Your task to perform on an android device: turn vacation reply on in the gmail app Image 0: 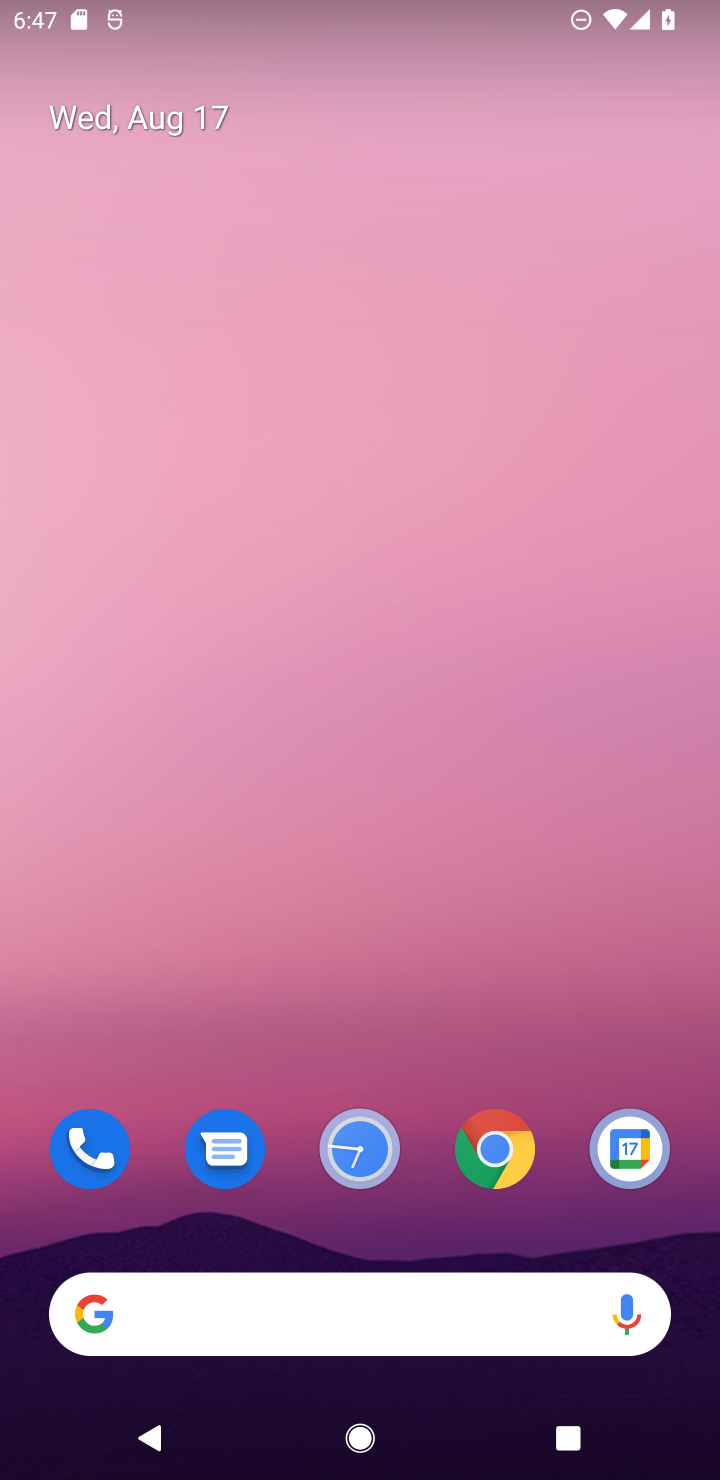
Step 0: drag from (427, 1245) to (414, 162)
Your task to perform on an android device: turn vacation reply on in the gmail app Image 1: 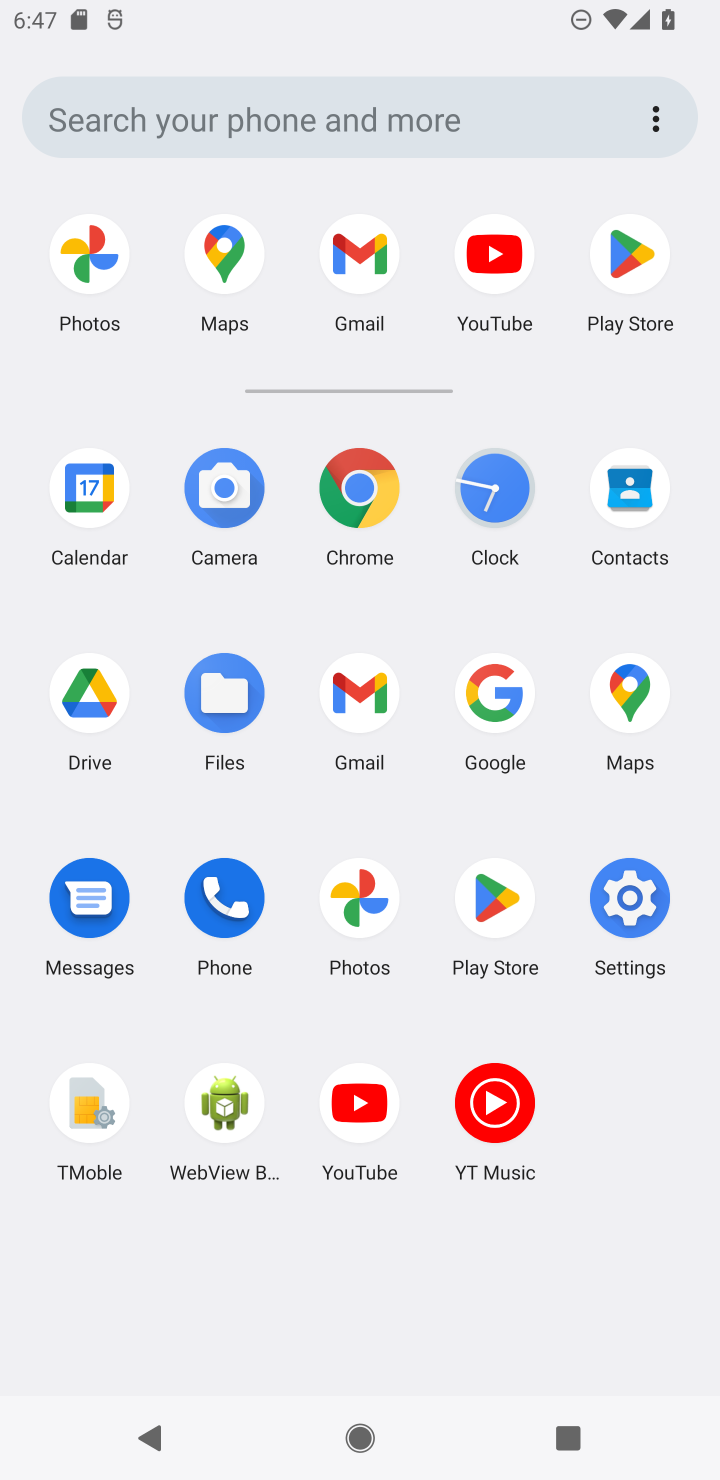
Step 1: click (355, 246)
Your task to perform on an android device: turn vacation reply on in the gmail app Image 2: 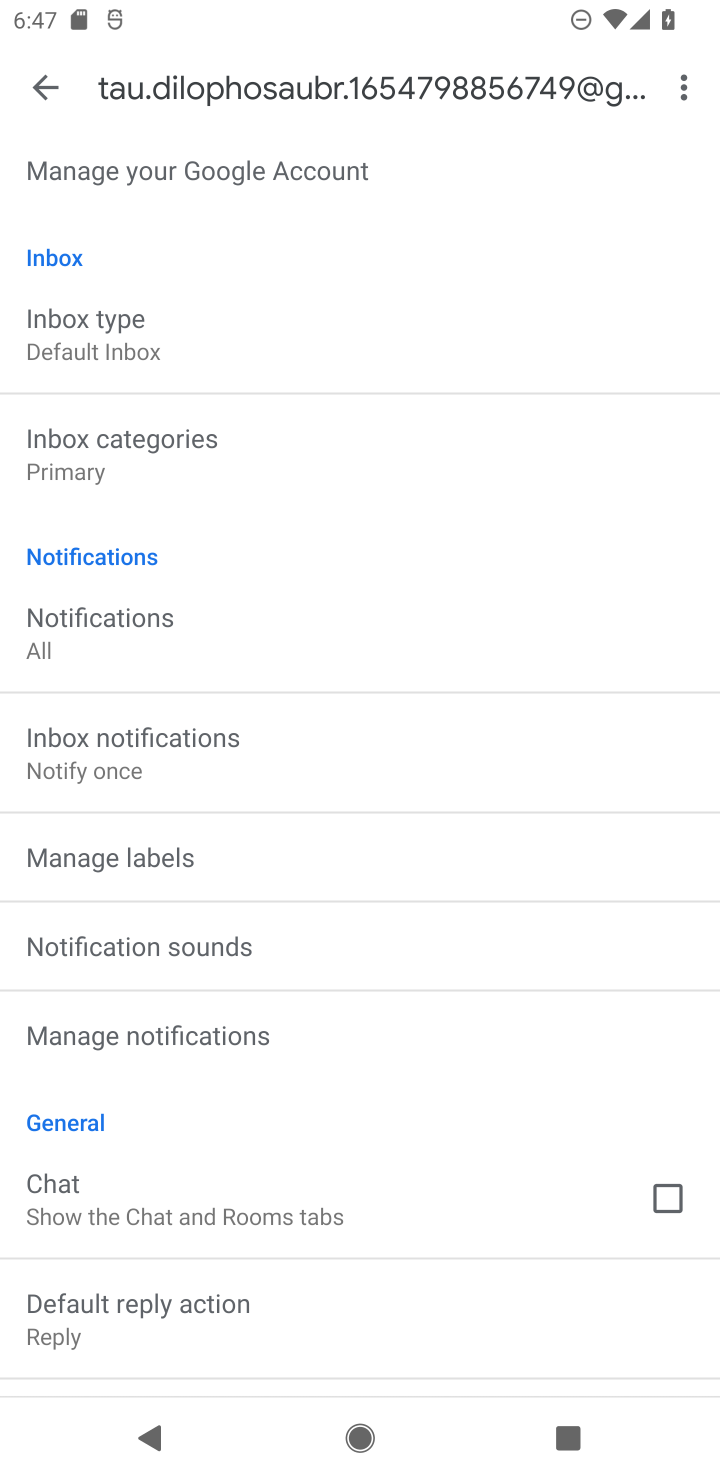
Step 2: drag from (215, 1122) to (169, 297)
Your task to perform on an android device: turn vacation reply on in the gmail app Image 3: 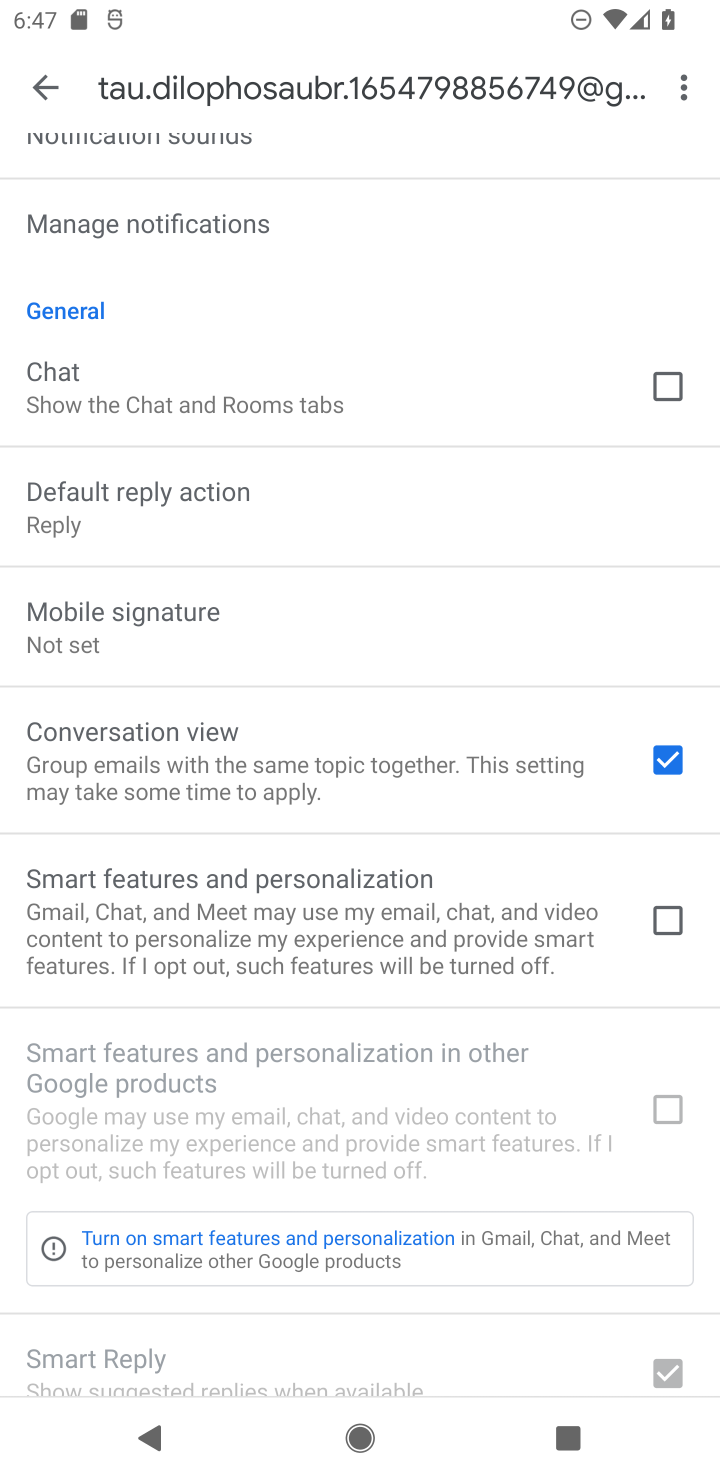
Step 3: drag from (393, 1102) to (358, 519)
Your task to perform on an android device: turn vacation reply on in the gmail app Image 4: 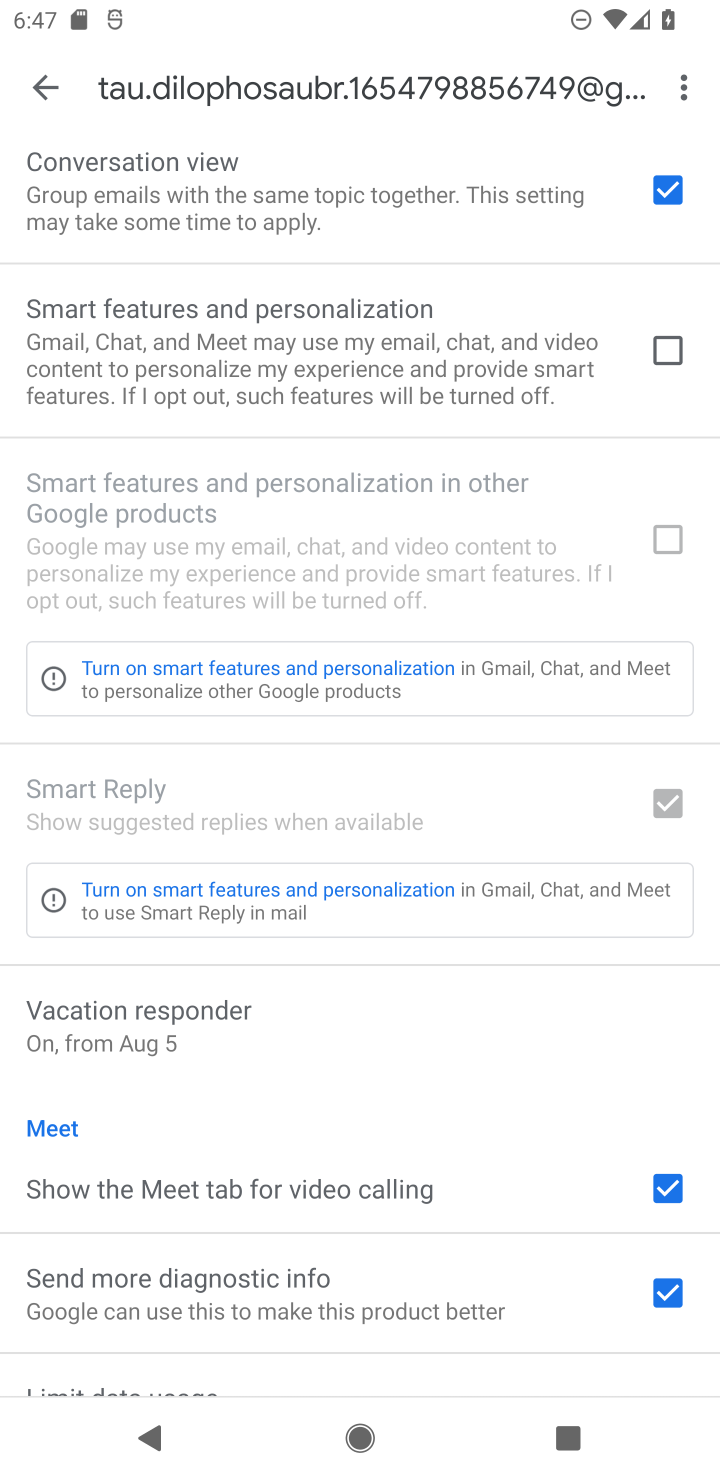
Step 4: click (99, 1013)
Your task to perform on an android device: turn vacation reply on in the gmail app Image 5: 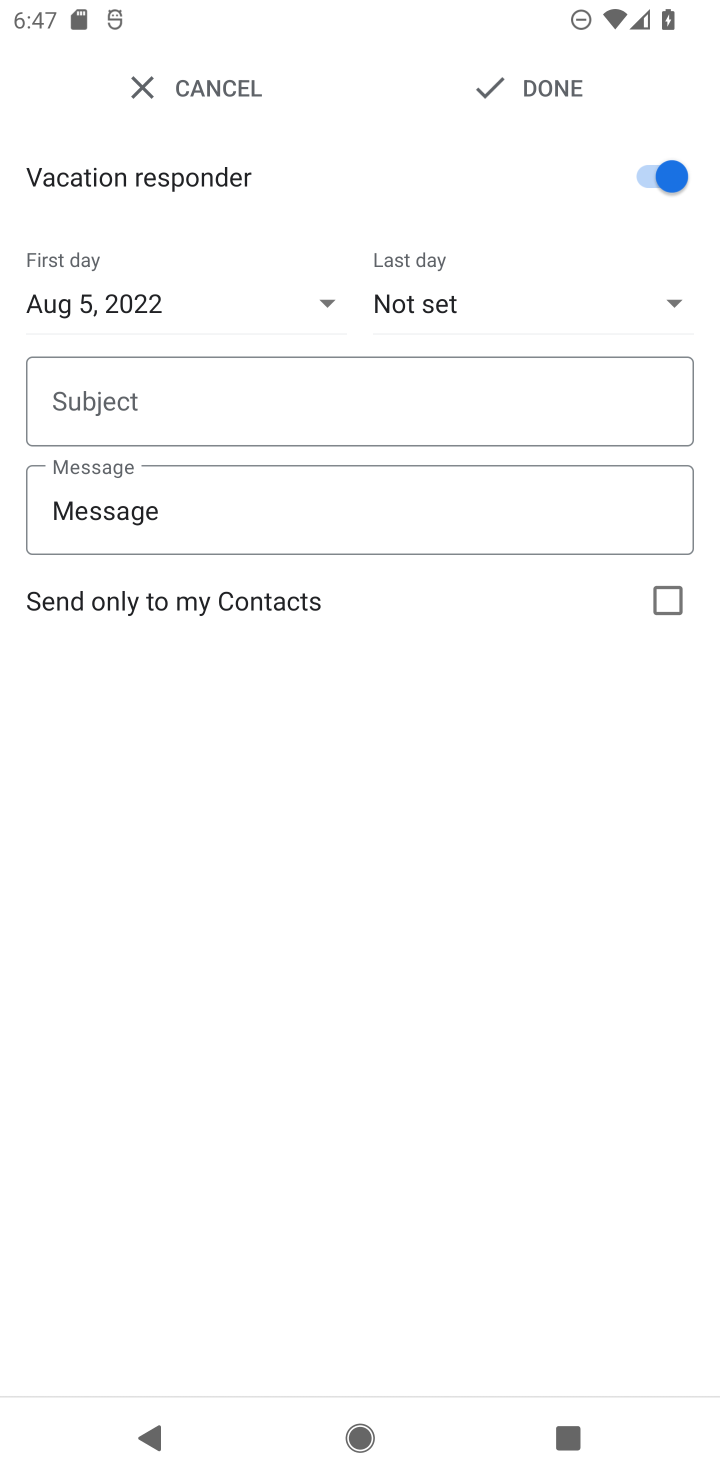
Step 5: task complete